Your task to perform on an android device: toggle pop-ups in chrome Image 0: 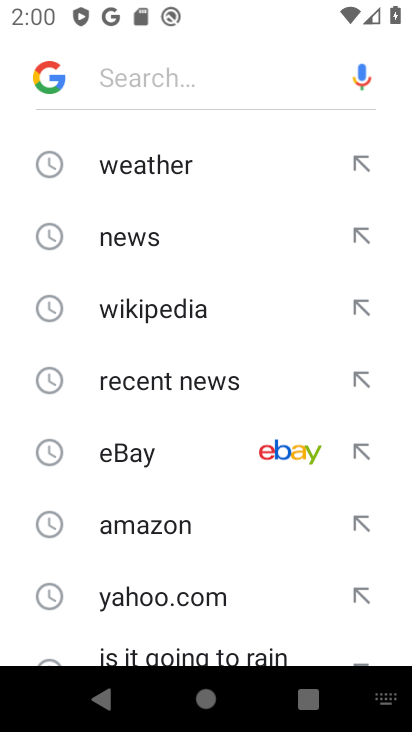
Step 0: press home button
Your task to perform on an android device: toggle pop-ups in chrome Image 1: 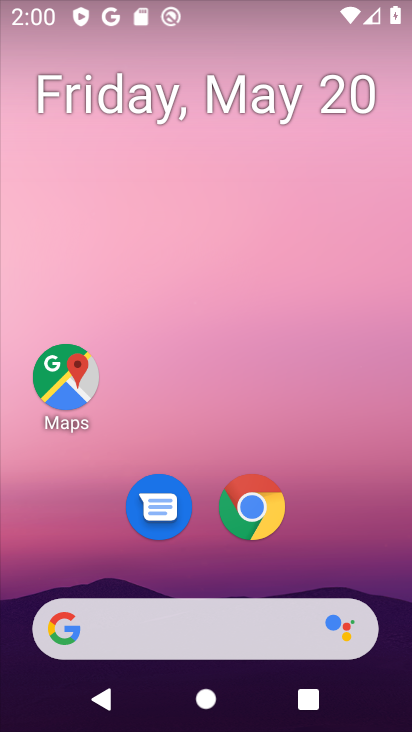
Step 1: click (245, 504)
Your task to perform on an android device: toggle pop-ups in chrome Image 2: 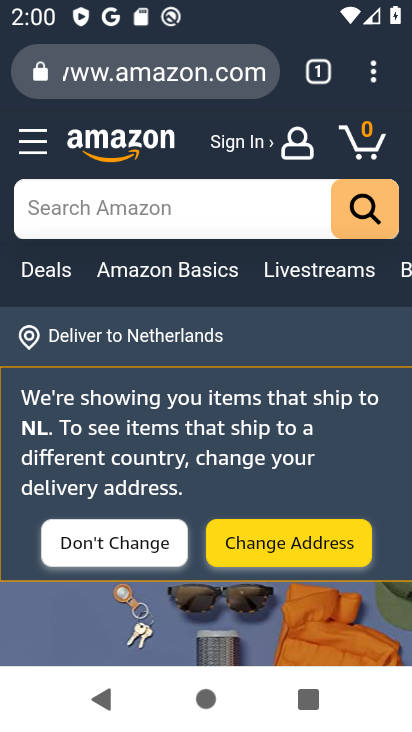
Step 2: click (370, 73)
Your task to perform on an android device: toggle pop-ups in chrome Image 3: 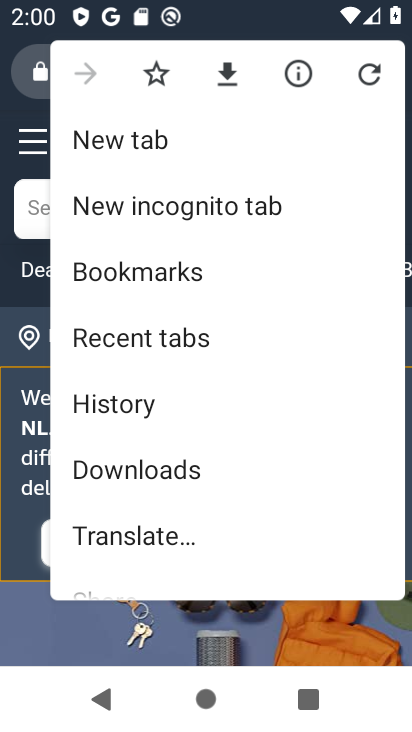
Step 3: drag from (201, 510) to (169, 178)
Your task to perform on an android device: toggle pop-ups in chrome Image 4: 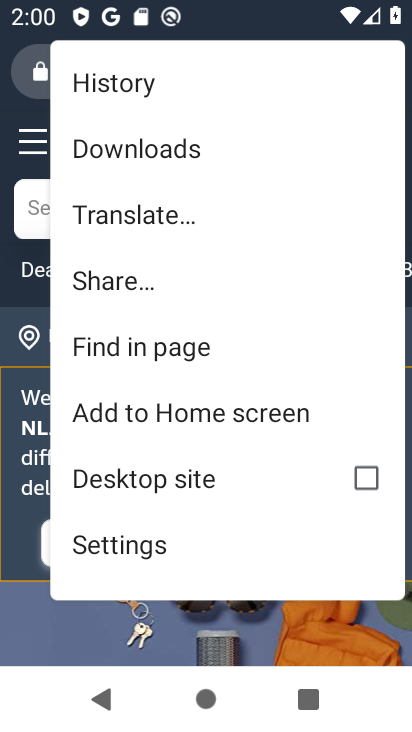
Step 4: click (136, 539)
Your task to perform on an android device: toggle pop-ups in chrome Image 5: 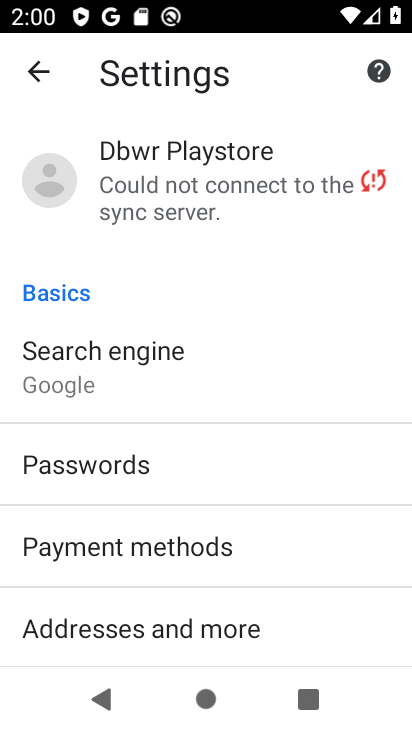
Step 5: drag from (167, 571) to (79, 319)
Your task to perform on an android device: toggle pop-ups in chrome Image 6: 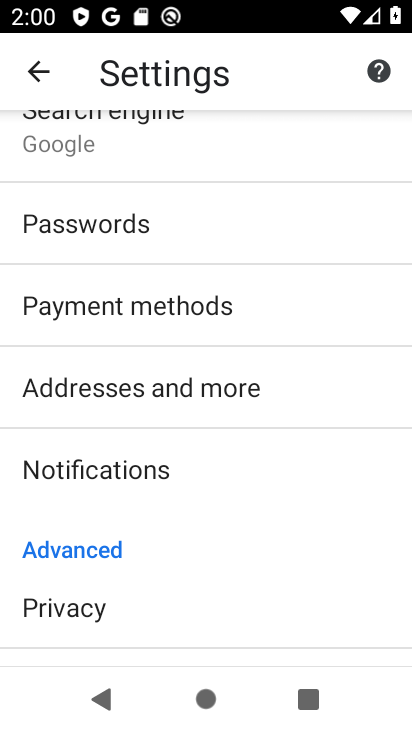
Step 6: drag from (109, 614) to (36, 328)
Your task to perform on an android device: toggle pop-ups in chrome Image 7: 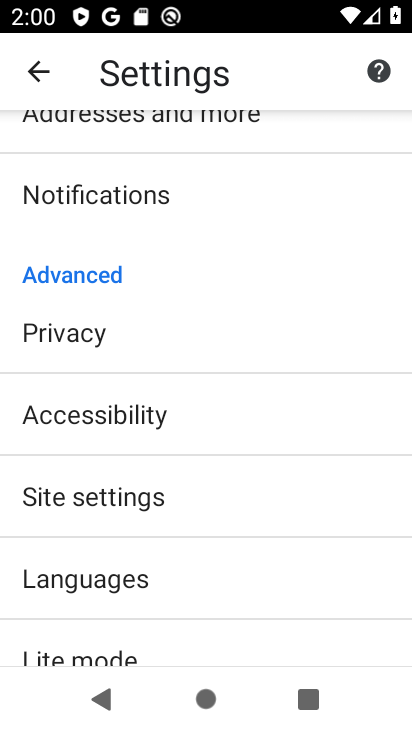
Step 7: click (131, 486)
Your task to perform on an android device: toggle pop-ups in chrome Image 8: 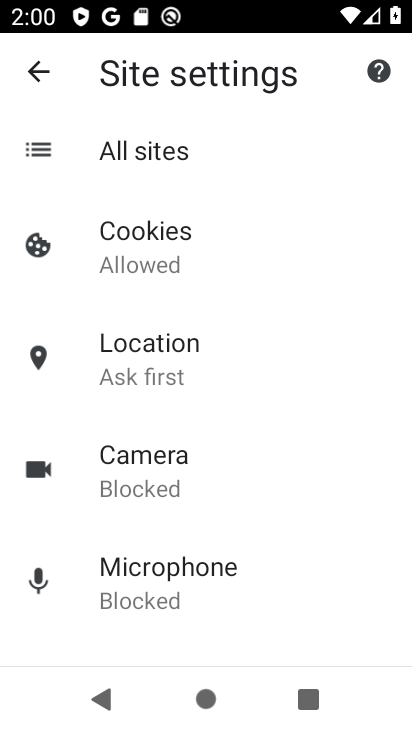
Step 8: drag from (196, 572) to (170, 352)
Your task to perform on an android device: toggle pop-ups in chrome Image 9: 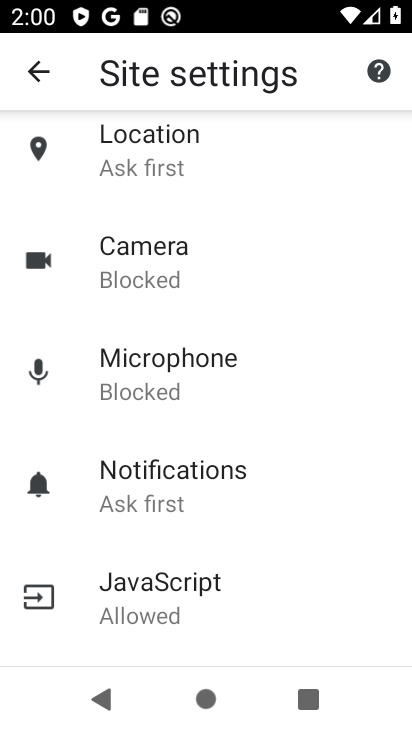
Step 9: drag from (219, 586) to (183, 445)
Your task to perform on an android device: toggle pop-ups in chrome Image 10: 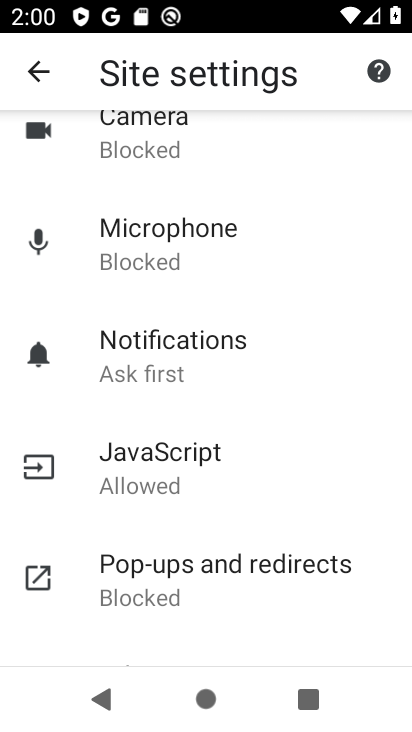
Step 10: click (205, 566)
Your task to perform on an android device: toggle pop-ups in chrome Image 11: 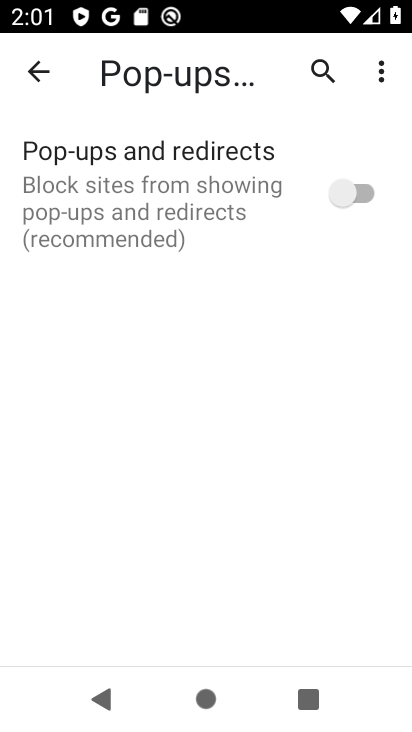
Step 11: click (340, 193)
Your task to perform on an android device: toggle pop-ups in chrome Image 12: 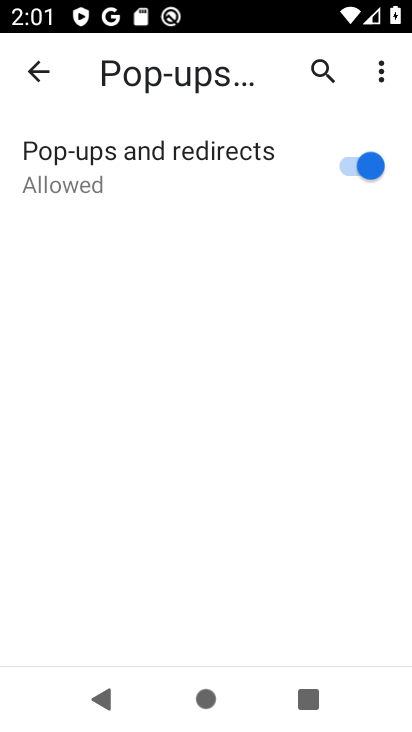
Step 12: task complete